Your task to perform on an android device: Add "bose soundlink mini" to the cart on amazon Image 0: 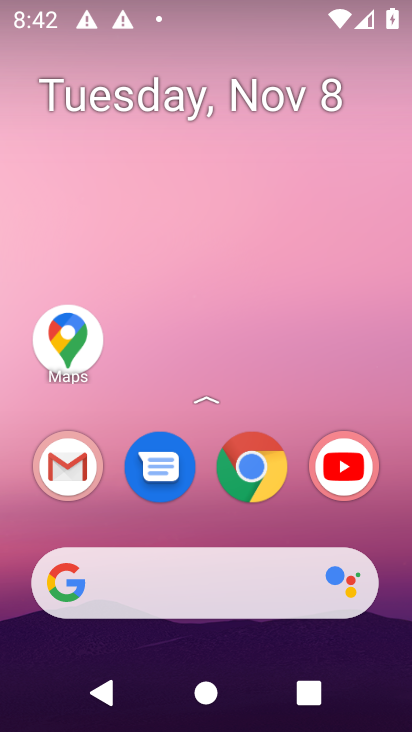
Step 0: click (242, 582)
Your task to perform on an android device: Add "bose soundlink mini" to the cart on amazon Image 1: 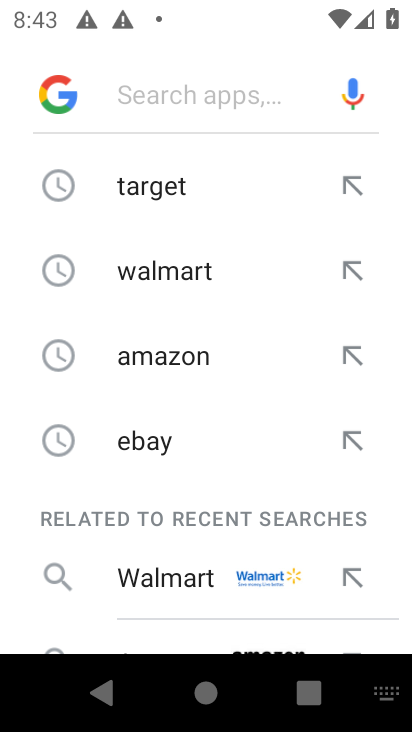
Step 1: press home button
Your task to perform on an android device: Add "bose soundlink mini" to the cart on amazon Image 2: 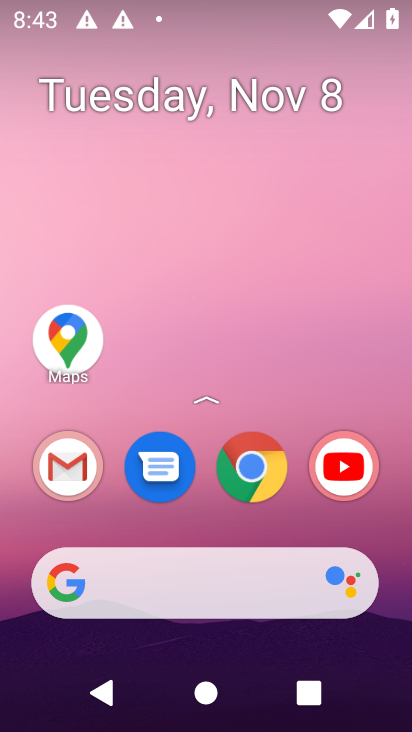
Step 2: click (231, 602)
Your task to perform on an android device: Add "bose soundlink mini" to the cart on amazon Image 3: 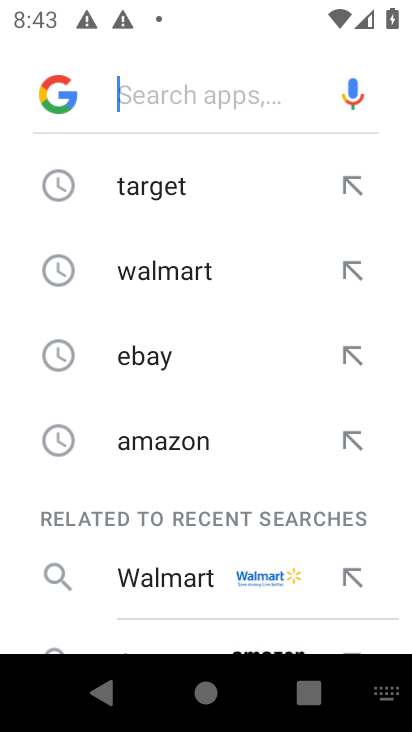
Step 3: type "bose soundlink mini"
Your task to perform on an android device: Add "bose soundlink mini" to the cart on amazon Image 4: 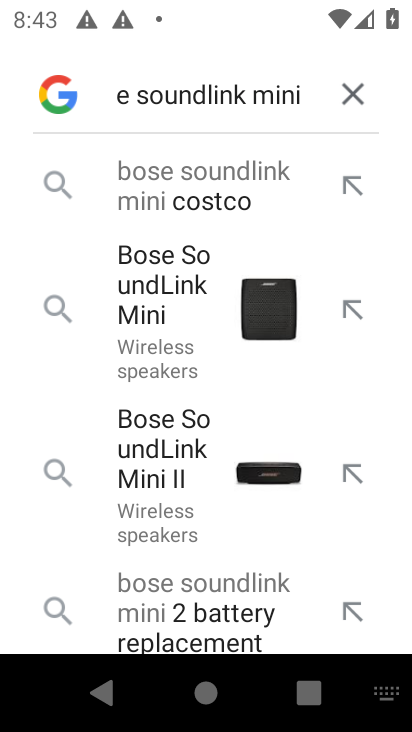
Step 4: click (202, 217)
Your task to perform on an android device: Add "bose soundlink mini" to the cart on amazon Image 5: 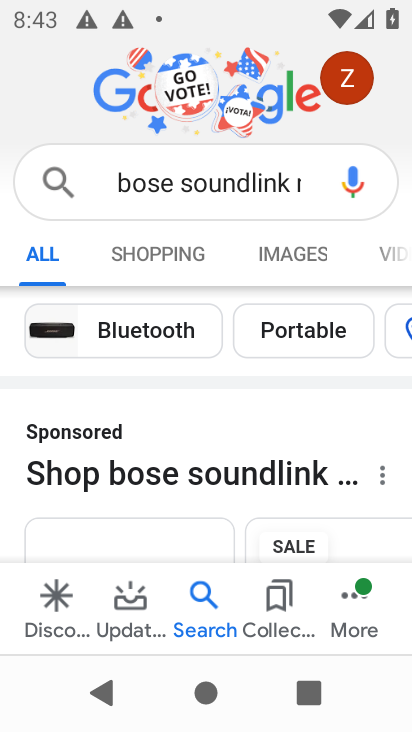
Step 5: task complete